Your task to perform on an android device: open app "Google Home" (install if not already installed) Image 0: 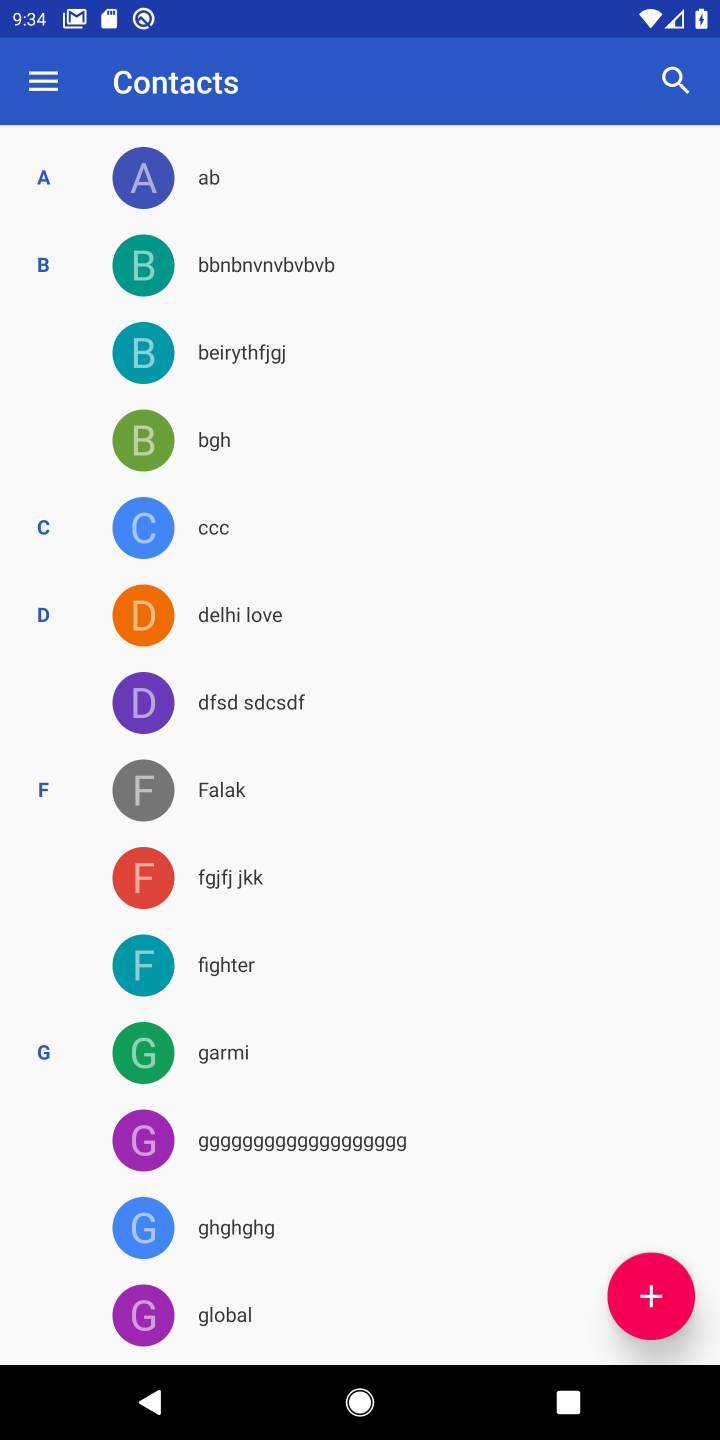
Step 0: press home button
Your task to perform on an android device: open app "Google Home" (install if not already installed) Image 1: 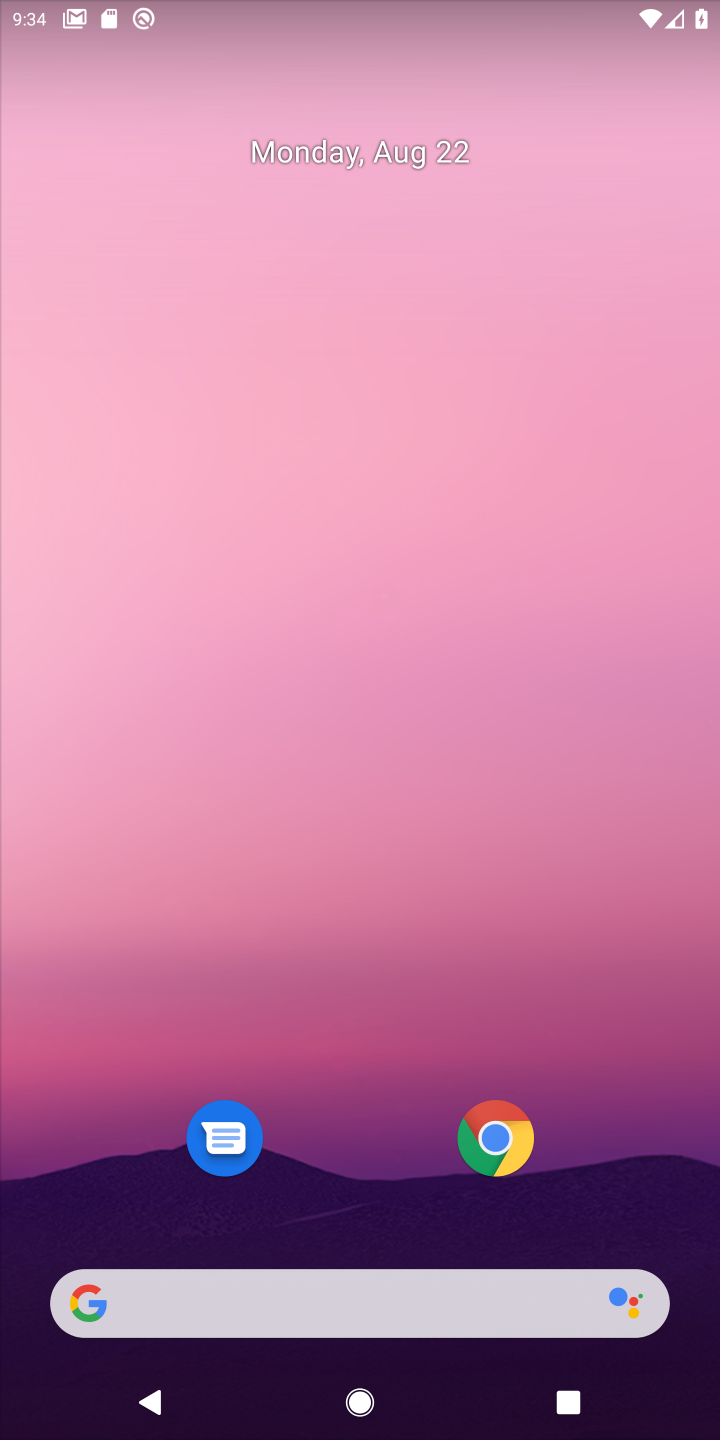
Step 1: drag from (303, 1016) to (140, 6)
Your task to perform on an android device: open app "Google Home" (install if not already installed) Image 2: 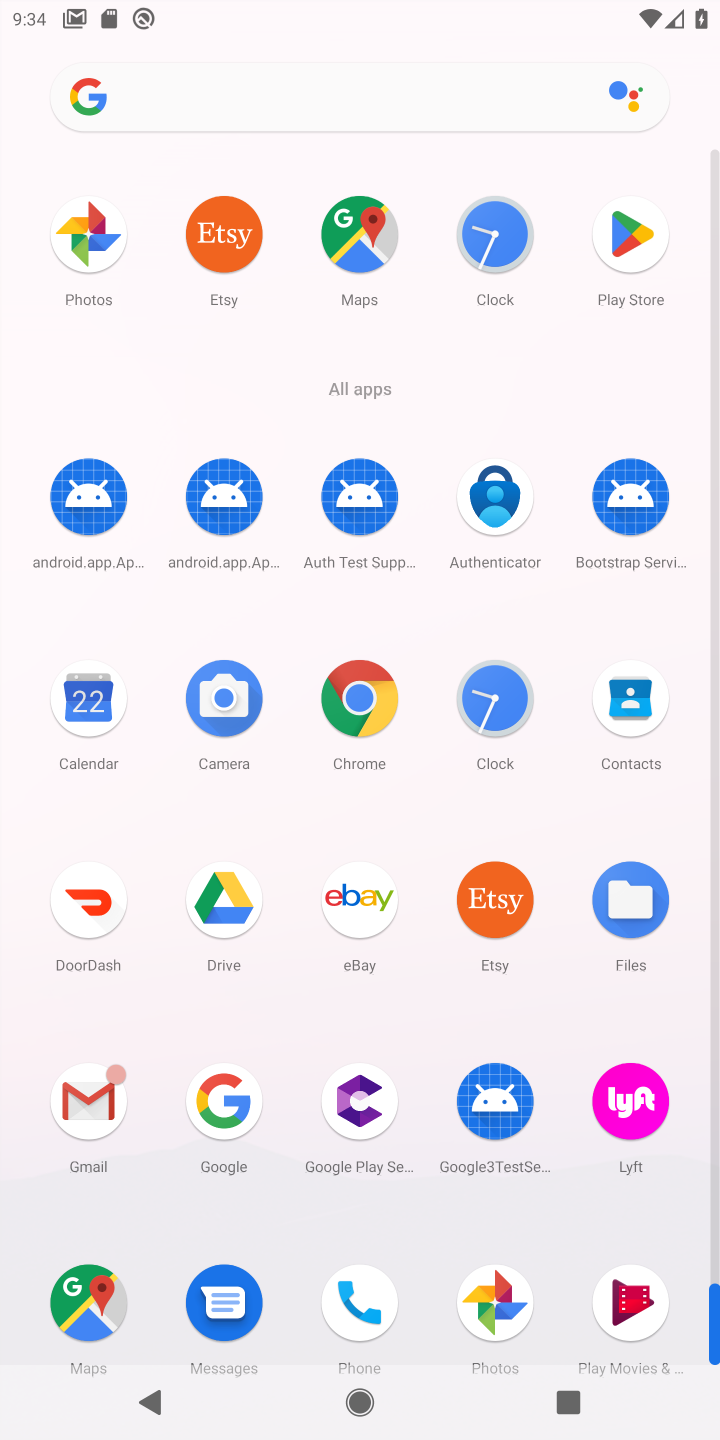
Step 2: click (621, 222)
Your task to perform on an android device: open app "Google Home" (install if not already installed) Image 3: 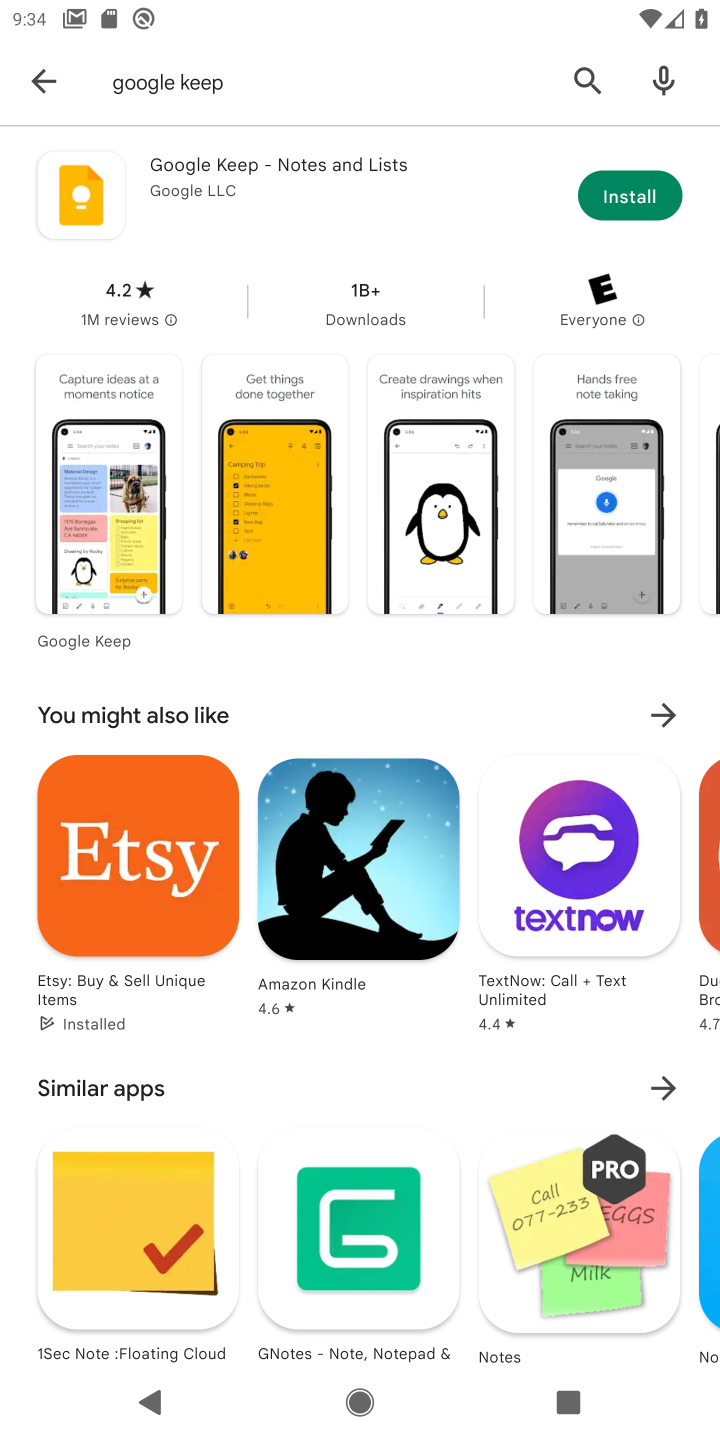
Step 3: click (580, 79)
Your task to perform on an android device: open app "Google Home" (install if not already installed) Image 4: 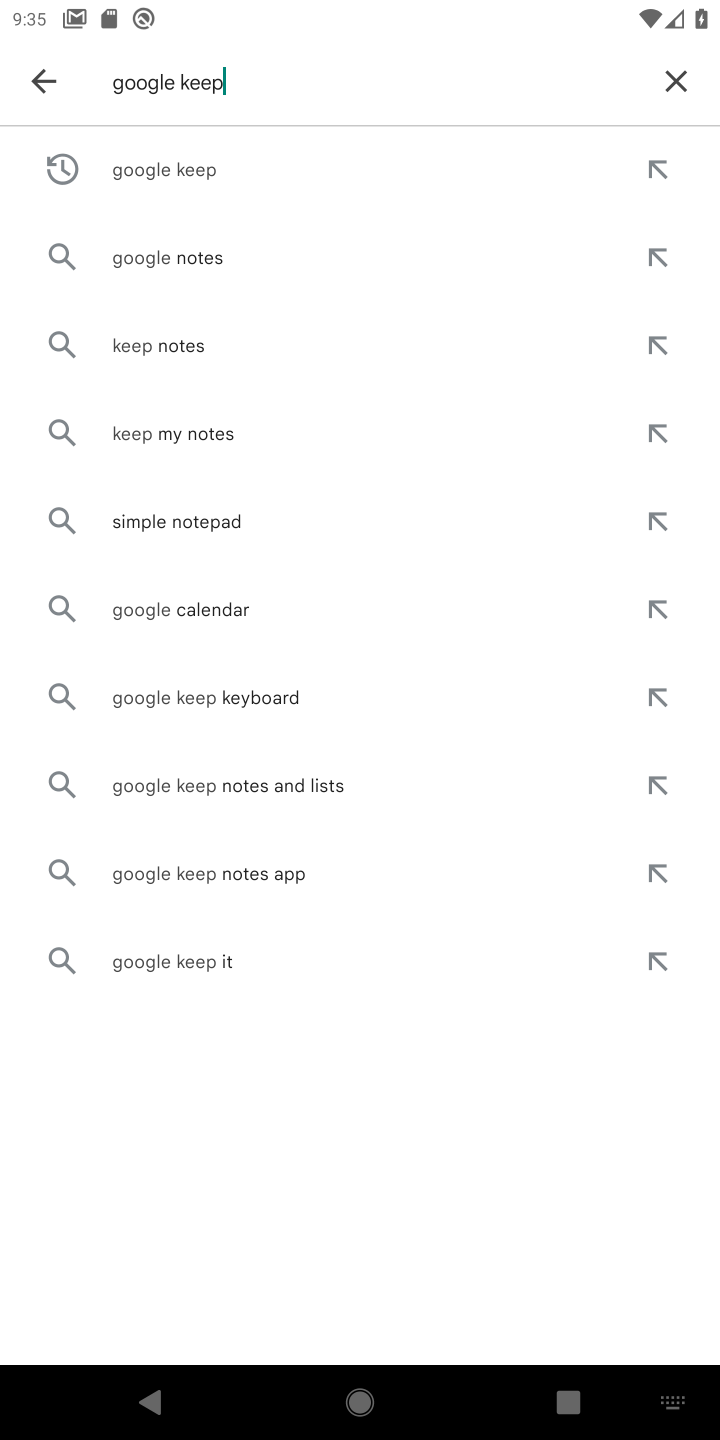
Step 4: click (679, 79)
Your task to perform on an android device: open app "Google Home" (install if not already installed) Image 5: 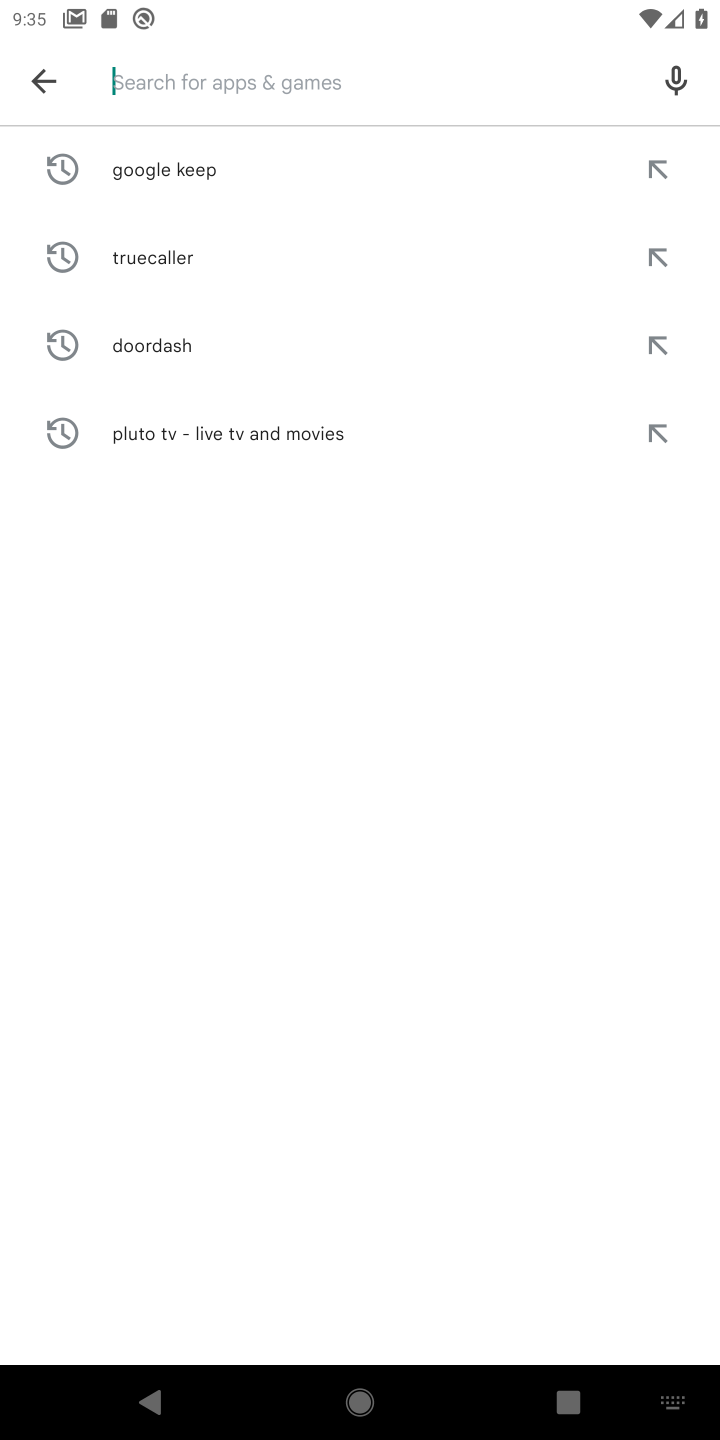
Step 5: type "google home"
Your task to perform on an android device: open app "Google Home" (install if not already installed) Image 6: 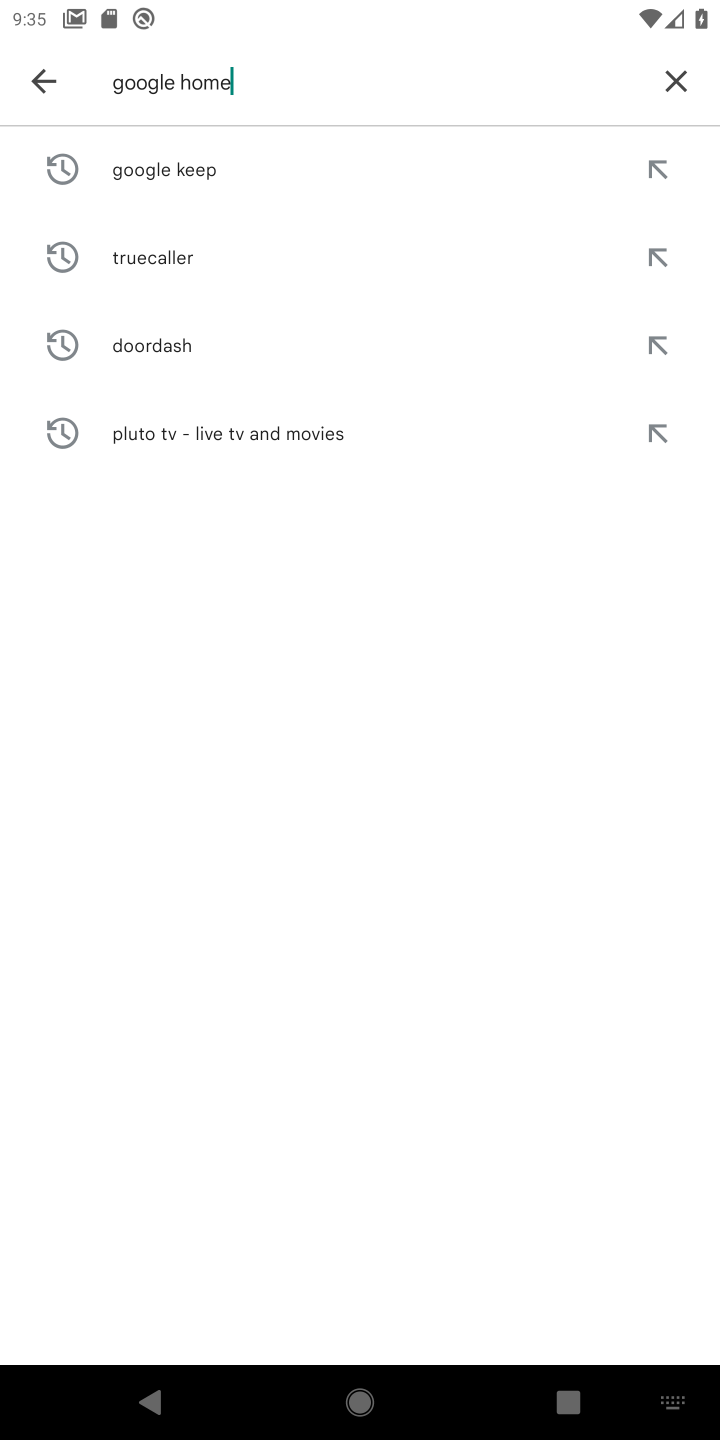
Step 6: type ""
Your task to perform on an android device: open app "Google Home" (install if not already installed) Image 7: 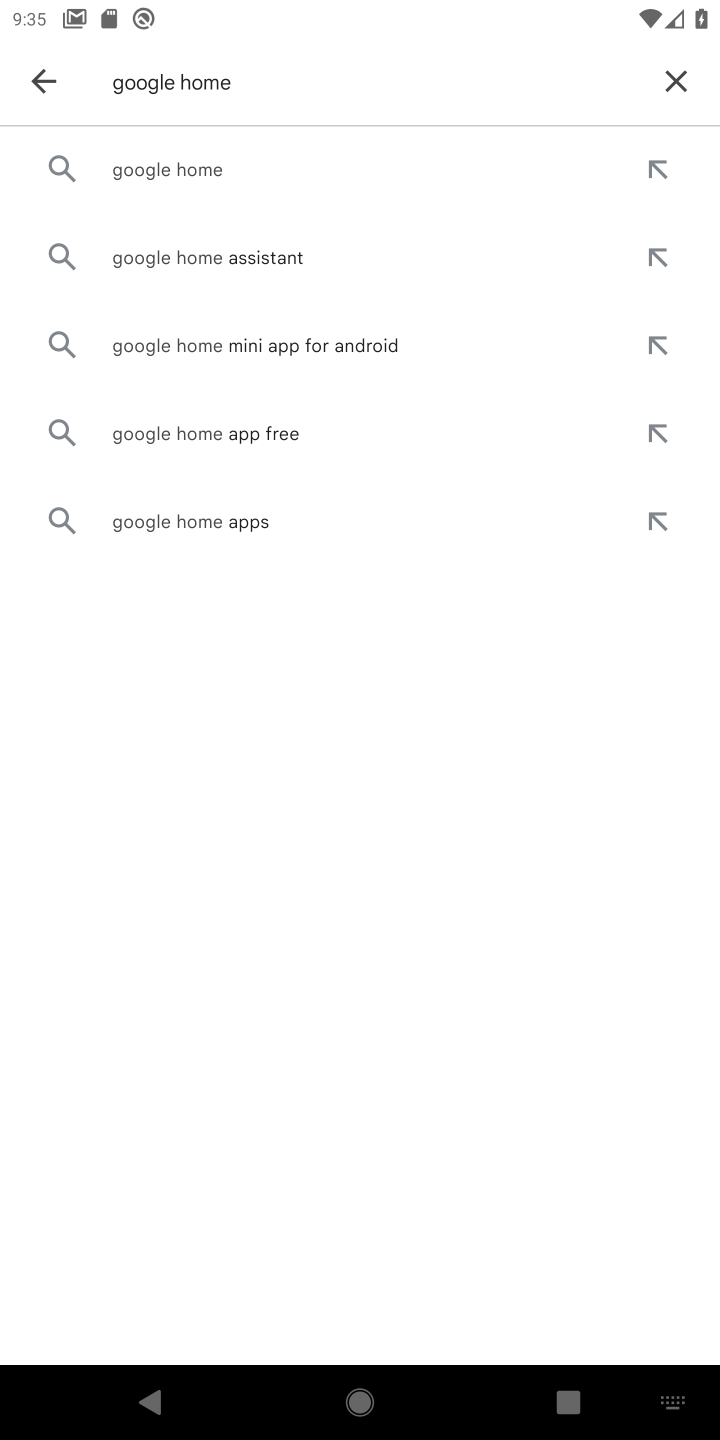
Step 7: click (107, 161)
Your task to perform on an android device: open app "Google Home" (install if not already installed) Image 8: 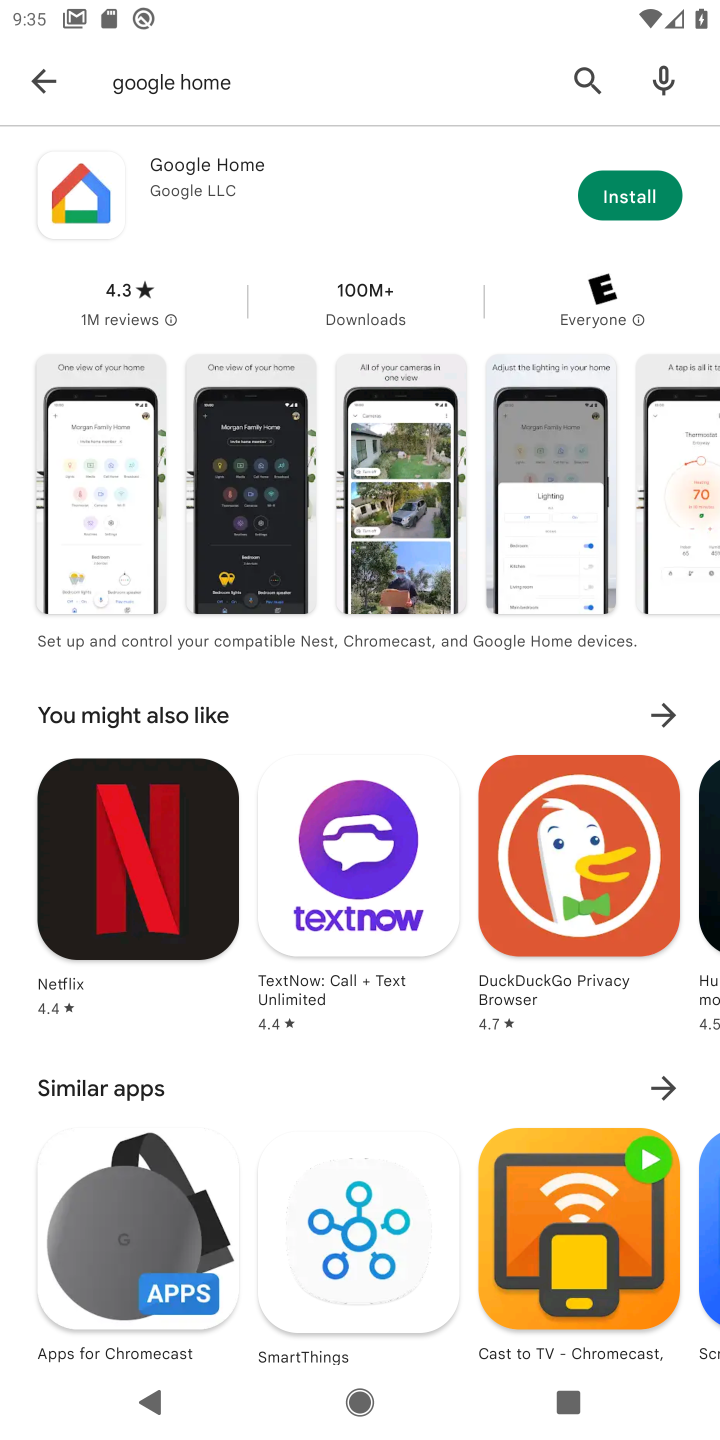
Step 8: click (626, 186)
Your task to perform on an android device: open app "Google Home" (install if not already installed) Image 9: 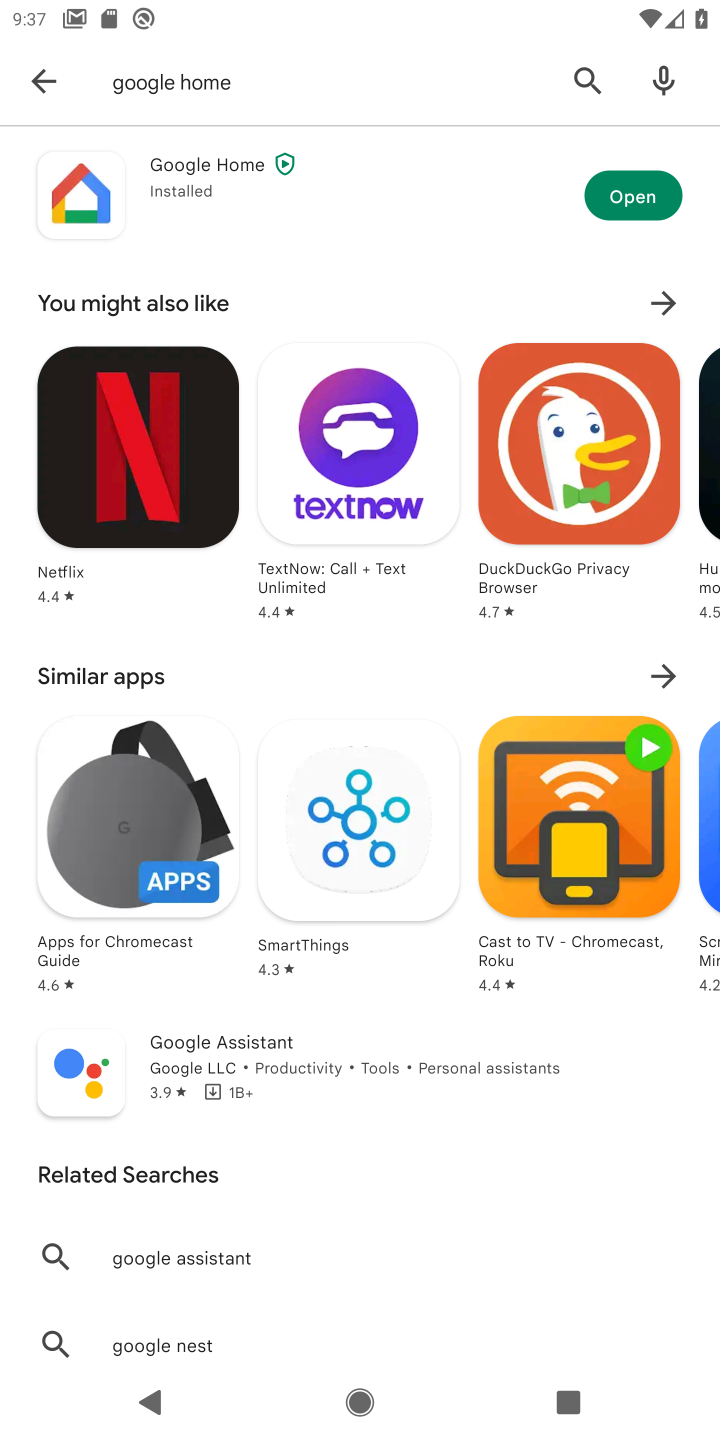
Step 9: click (637, 190)
Your task to perform on an android device: open app "Google Home" (install if not already installed) Image 10: 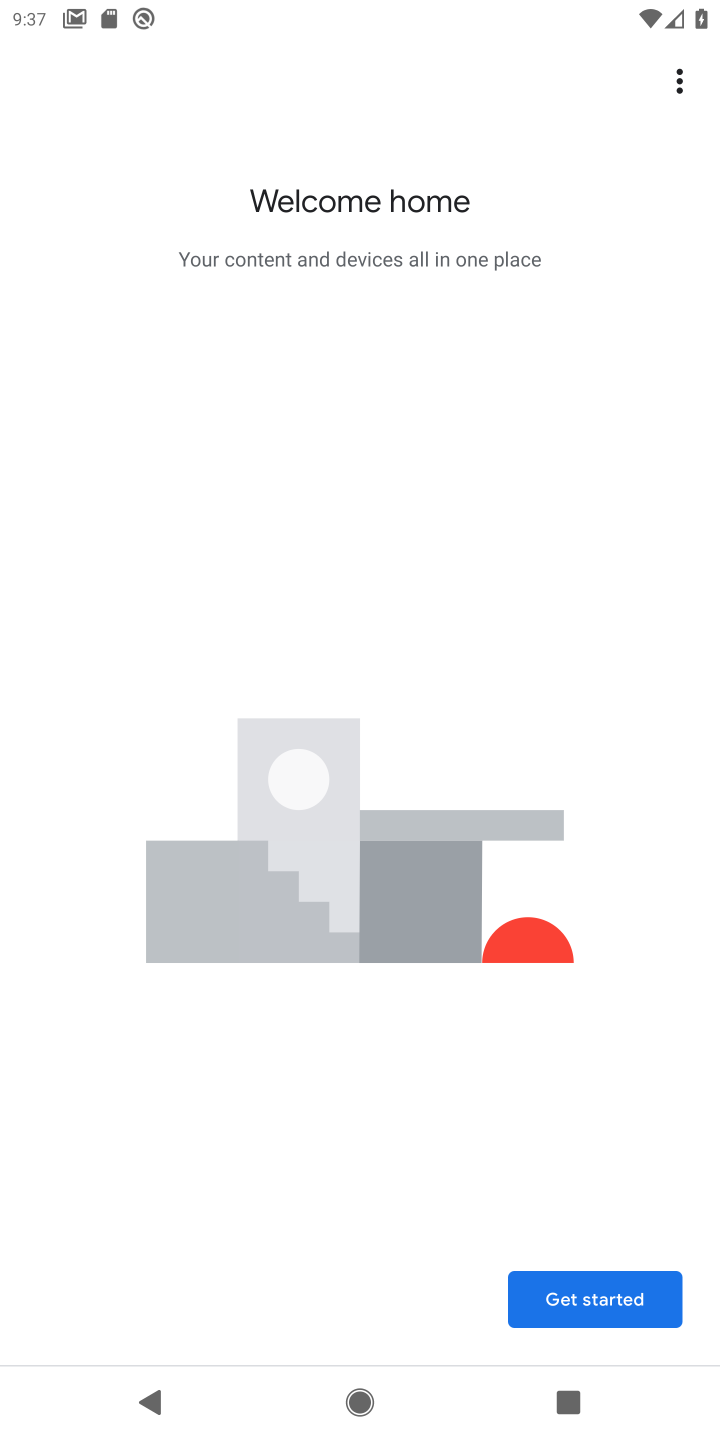
Step 10: task complete